Your task to perform on an android device: Open my contact list Image 0: 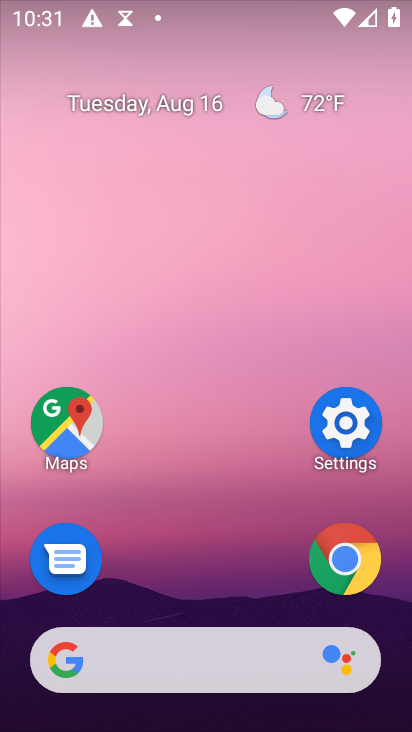
Step 0: drag from (215, 610) to (343, 47)
Your task to perform on an android device: Open my contact list Image 1: 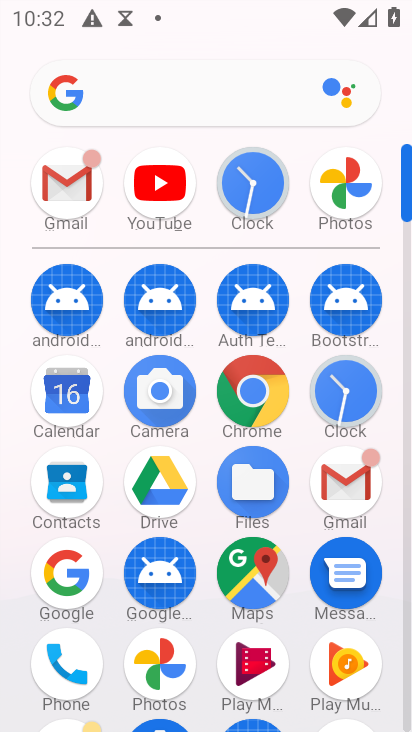
Step 1: click (60, 485)
Your task to perform on an android device: Open my contact list Image 2: 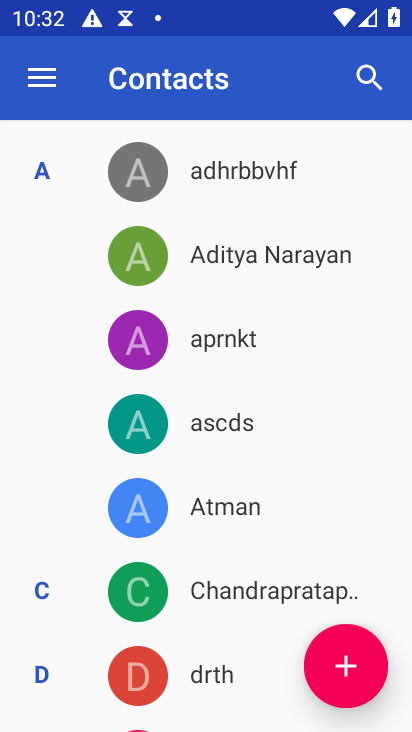
Step 2: task complete